Your task to perform on an android device: Turn off the flashlight Image 0: 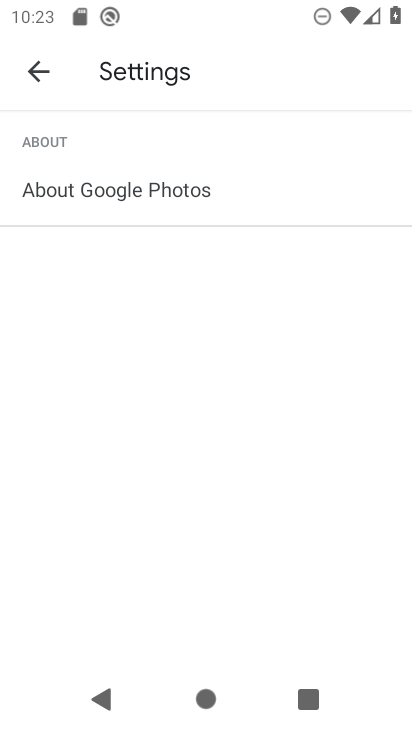
Step 0: press home button
Your task to perform on an android device: Turn off the flashlight Image 1: 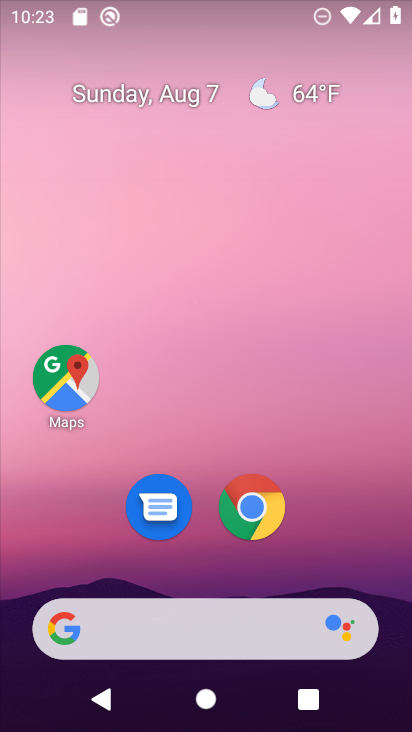
Step 1: drag from (366, 560) to (271, 103)
Your task to perform on an android device: Turn off the flashlight Image 2: 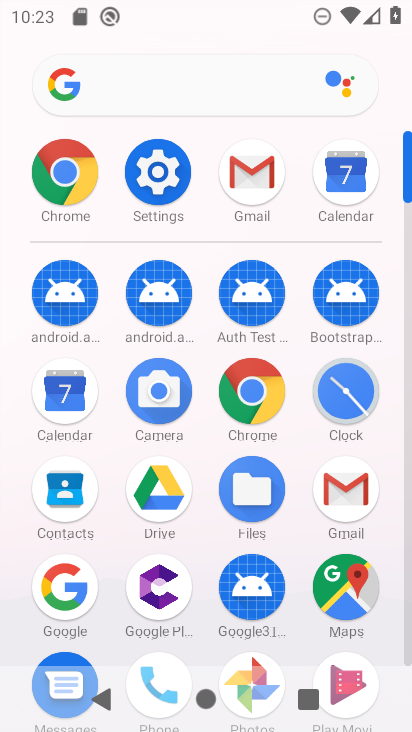
Step 2: click (152, 173)
Your task to perform on an android device: Turn off the flashlight Image 3: 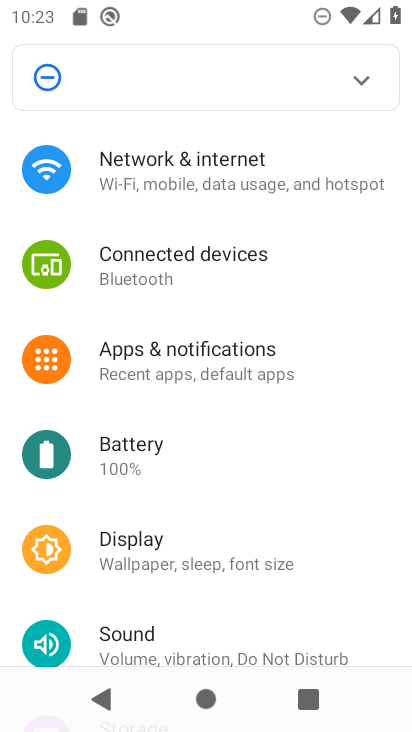
Step 3: click (203, 550)
Your task to perform on an android device: Turn off the flashlight Image 4: 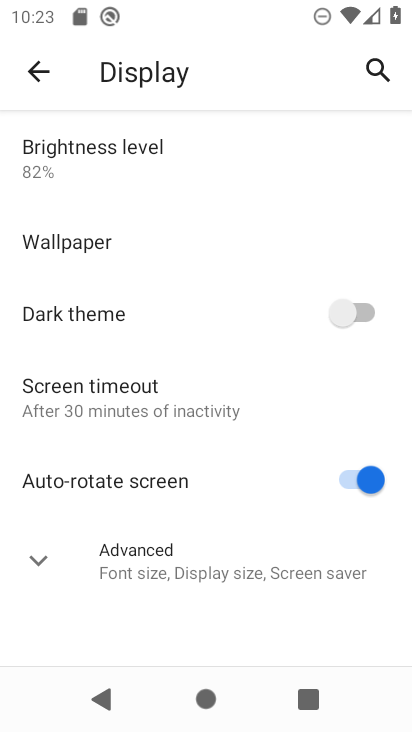
Step 4: click (116, 396)
Your task to perform on an android device: Turn off the flashlight Image 5: 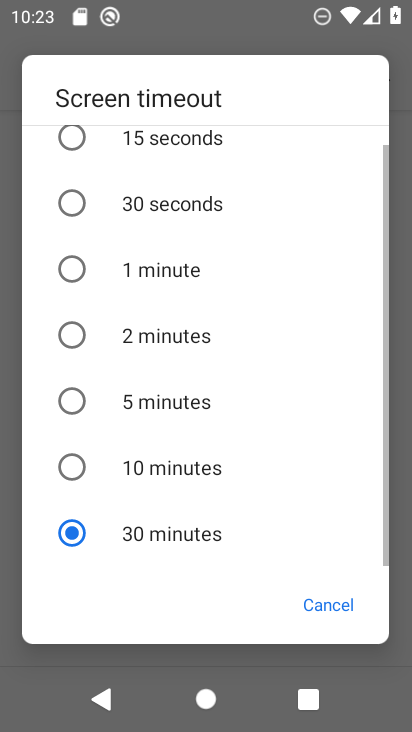
Step 5: task complete